Your task to perform on an android device: Go to calendar. Show me events next week Image 0: 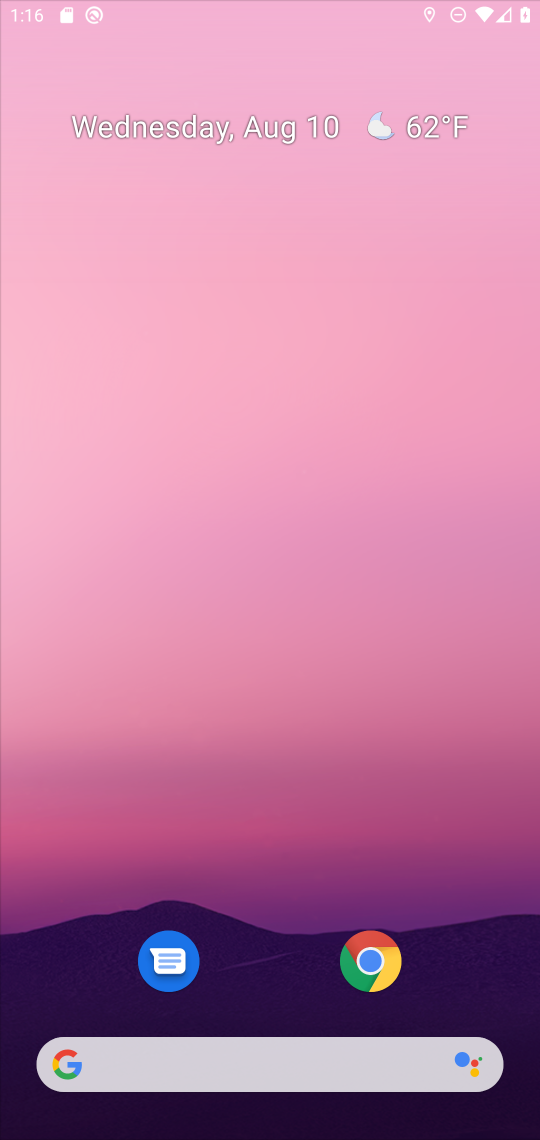
Step 0: press home button
Your task to perform on an android device: Go to calendar. Show me events next week Image 1: 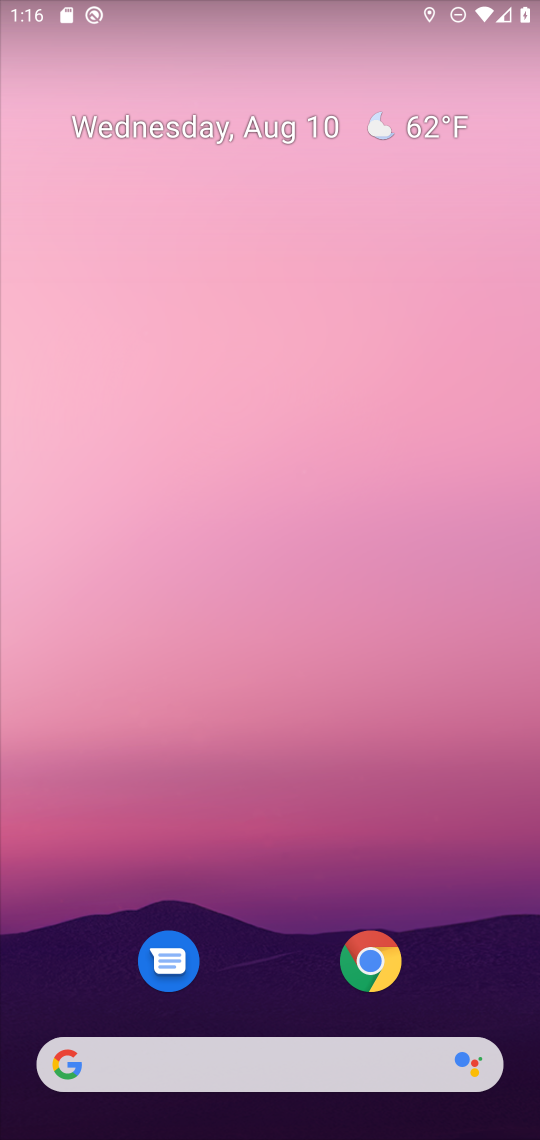
Step 1: drag from (280, 917) to (214, 149)
Your task to perform on an android device: Go to calendar. Show me events next week Image 2: 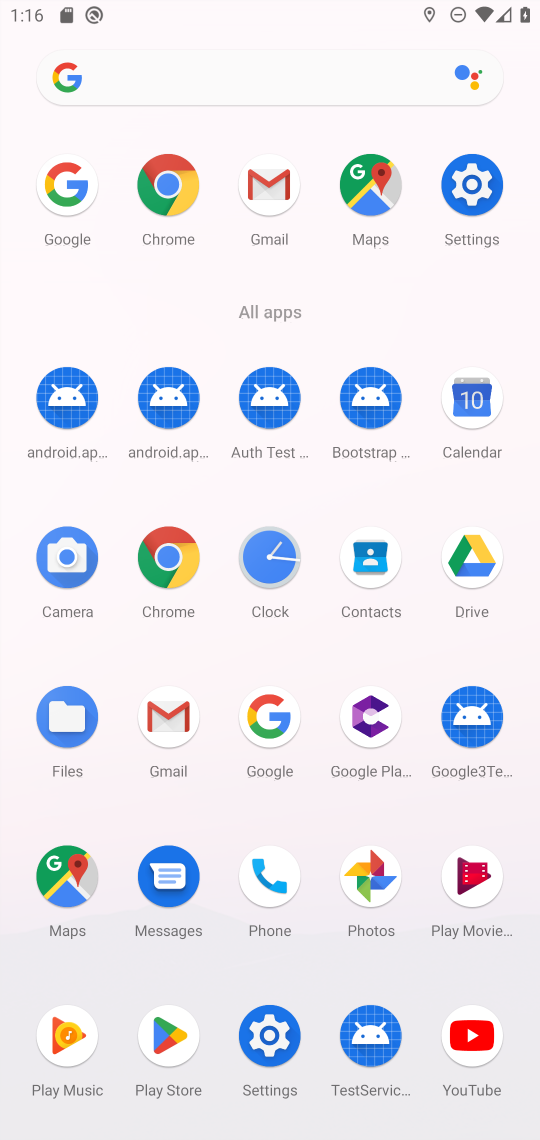
Step 2: click (470, 403)
Your task to perform on an android device: Go to calendar. Show me events next week Image 3: 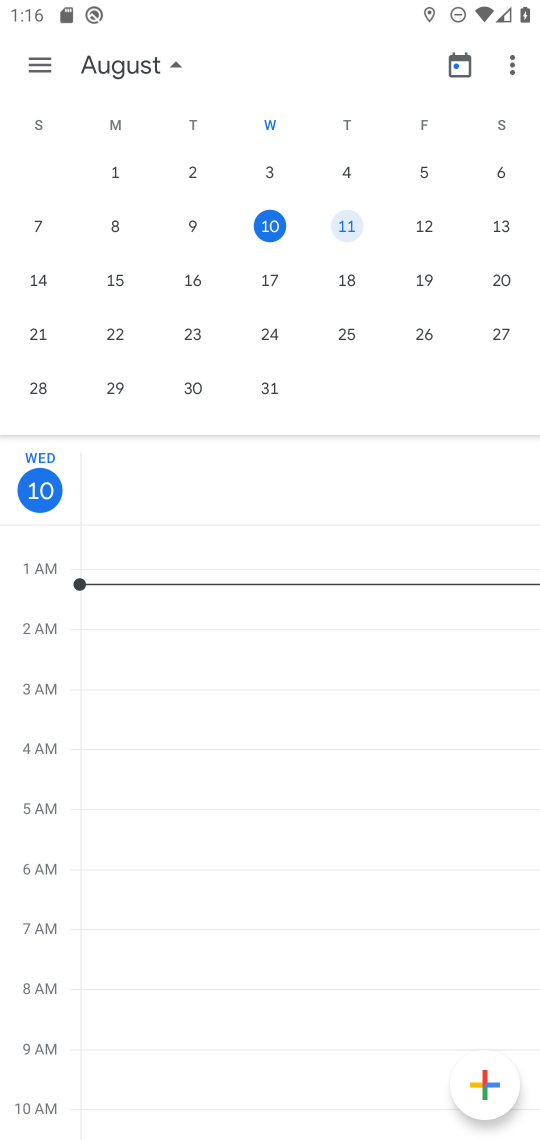
Step 3: click (268, 279)
Your task to perform on an android device: Go to calendar. Show me events next week Image 4: 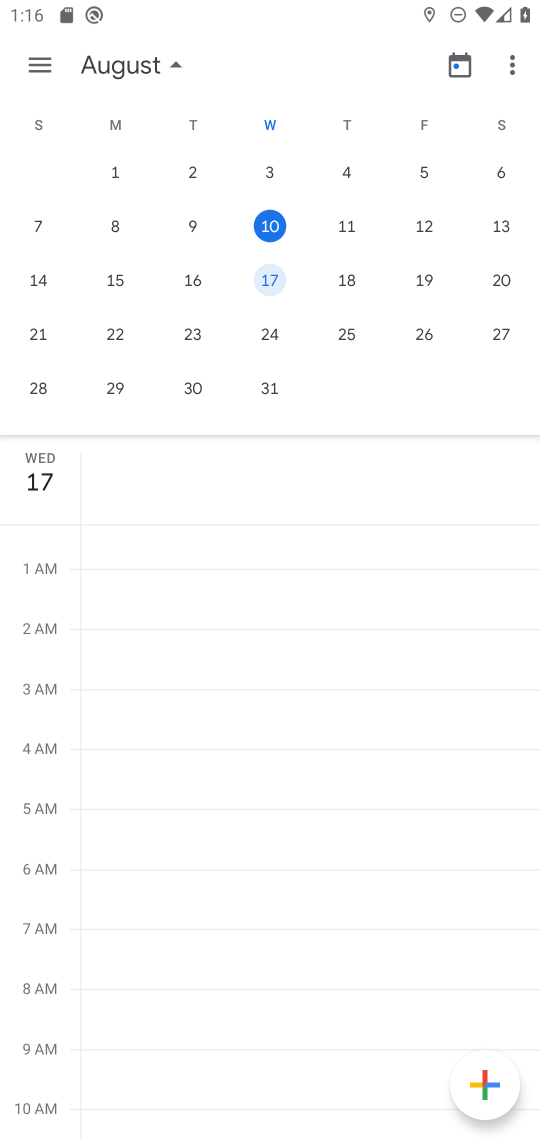
Step 4: click (47, 52)
Your task to perform on an android device: Go to calendar. Show me events next week Image 5: 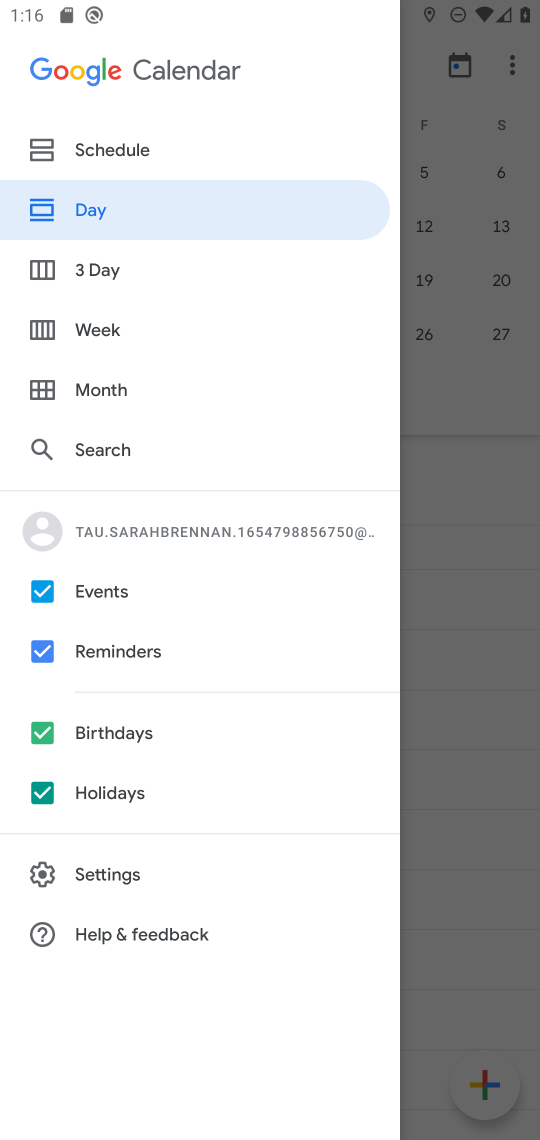
Step 5: click (102, 320)
Your task to perform on an android device: Go to calendar. Show me events next week Image 6: 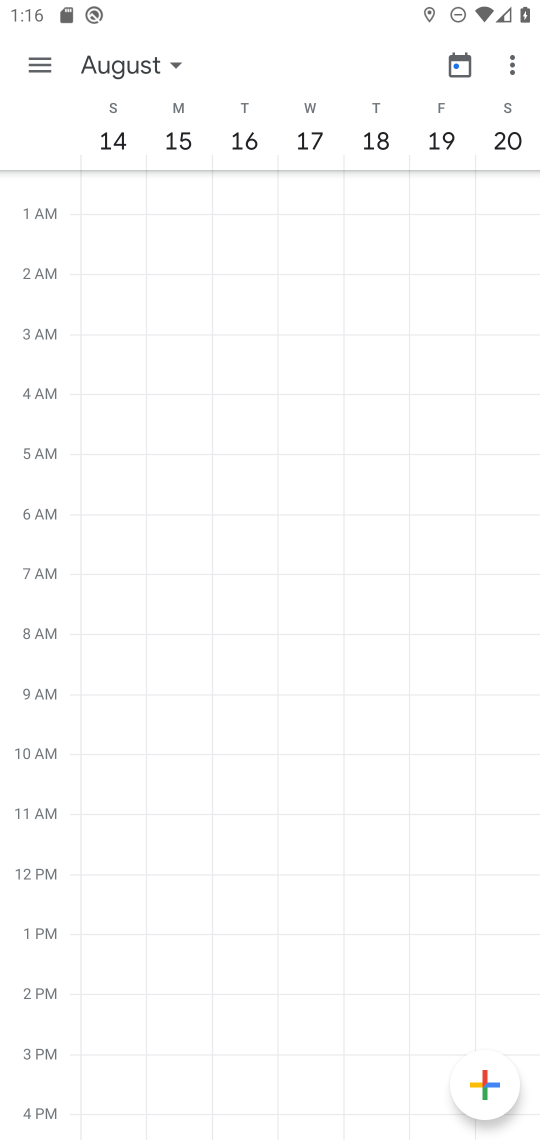
Step 6: task complete